Your task to perform on an android device: Open the stopwatch Image 0: 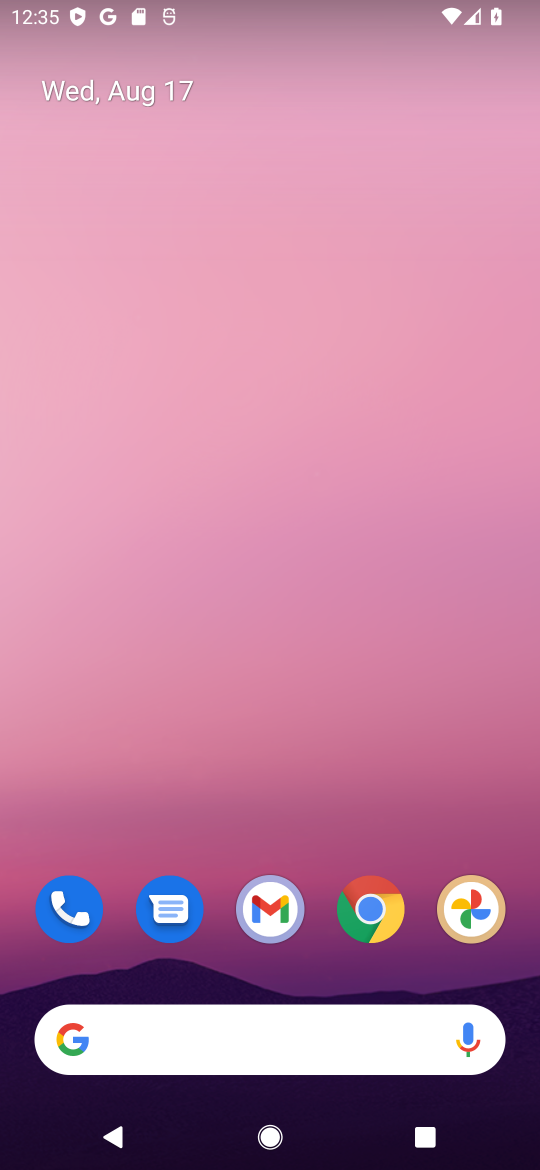
Step 0: drag from (333, 831) to (267, 90)
Your task to perform on an android device: Open the stopwatch Image 1: 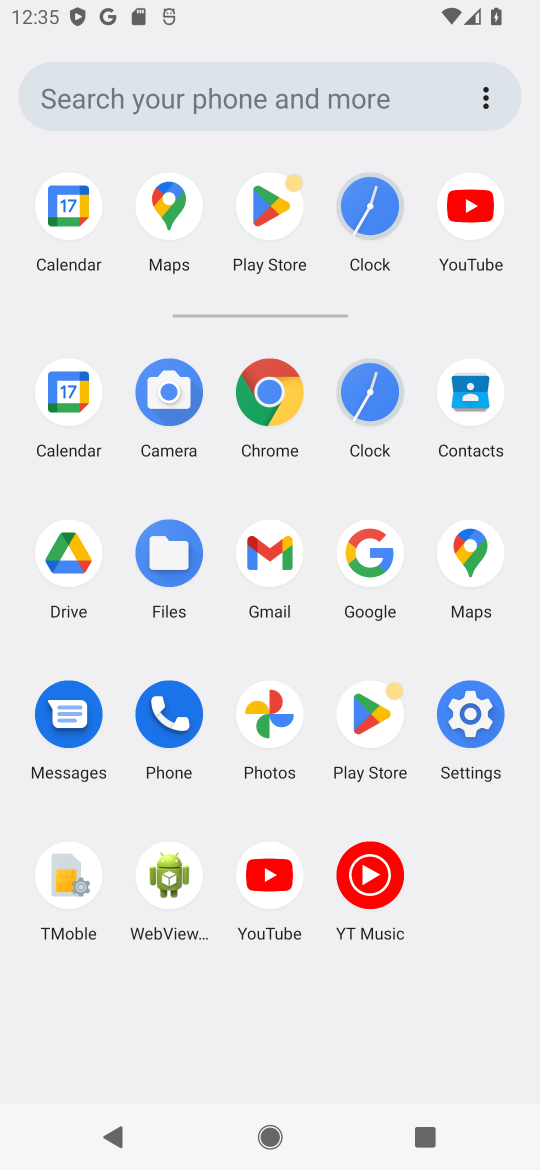
Step 1: click (372, 208)
Your task to perform on an android device: Open the stopwatch Image 2: 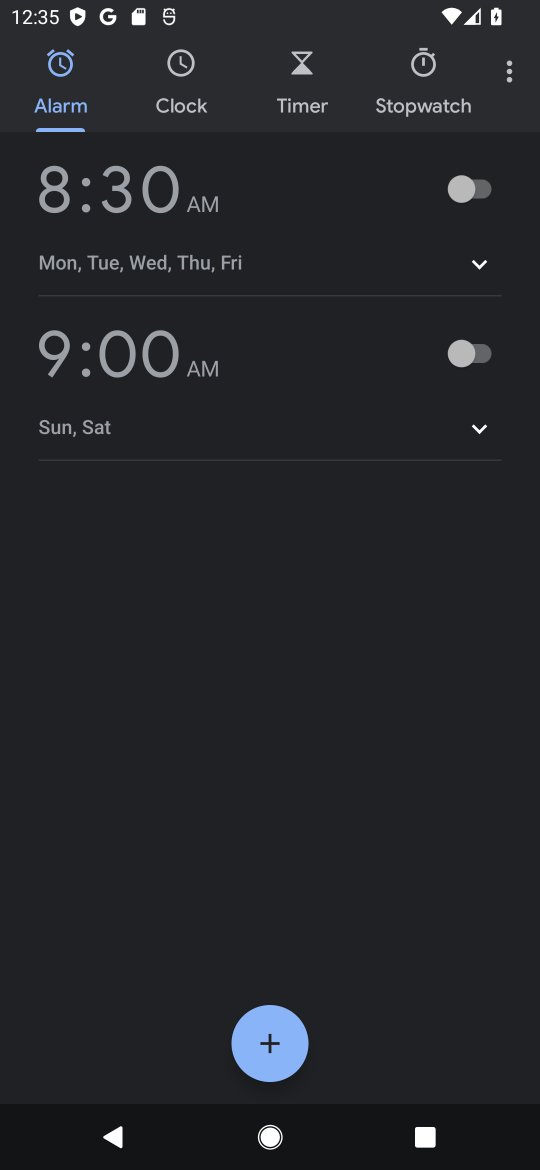
Step 2: click (440, 63)
Your task to perform on an android device: Open the stopwatch Image 3: 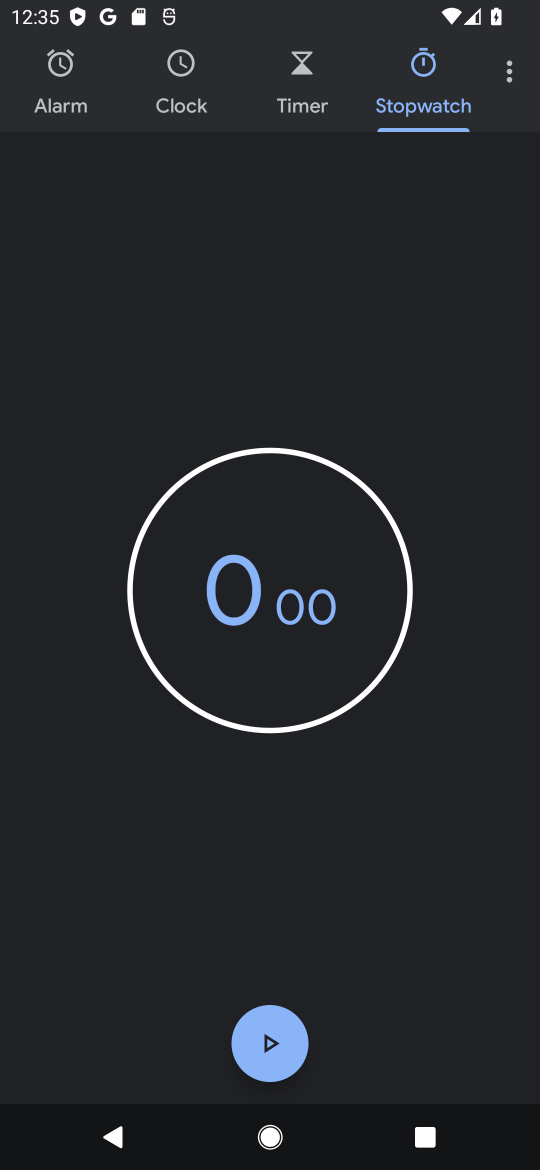
Step 3: task complete